Your task to perform on an android device: stop showing notifications on the lock screen Image 0: 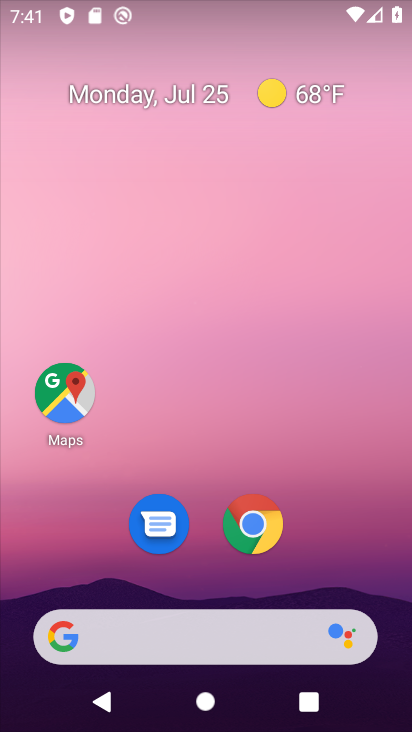
Step 0: drag from (322, 542) to (363, 18)
Your task to perform on an android device: stop showing notifications on the lock screen Image 1: 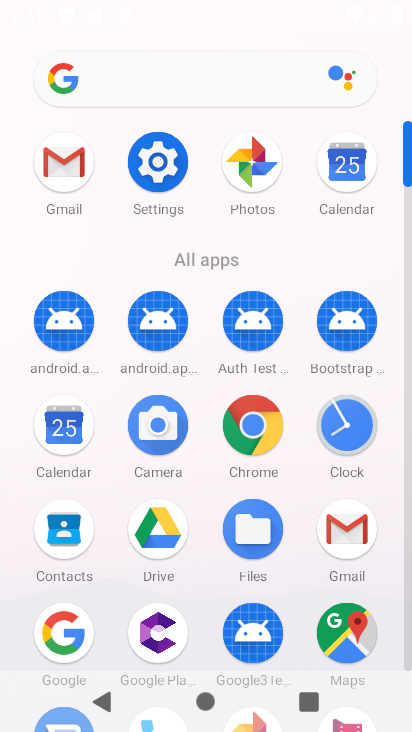
Step 1: click (159, 162)
Your task to perform on an android device: stop showing notifications on the lock screen Image 2: 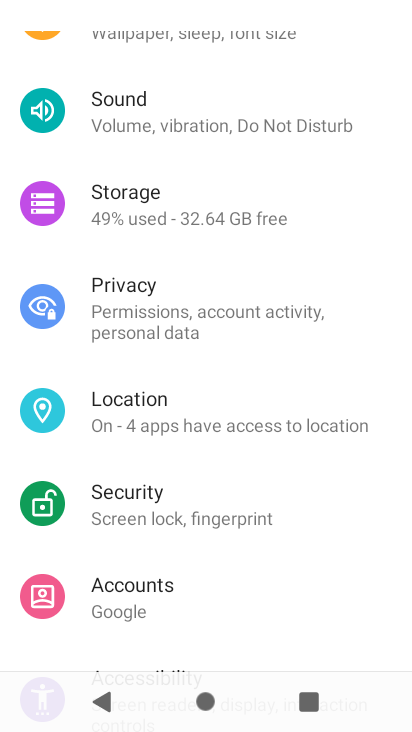
Step 2: drag from (195, 208) to (198, 534)
Your task to perform on an android device: stop showing notifications on the lock screen Image 3: 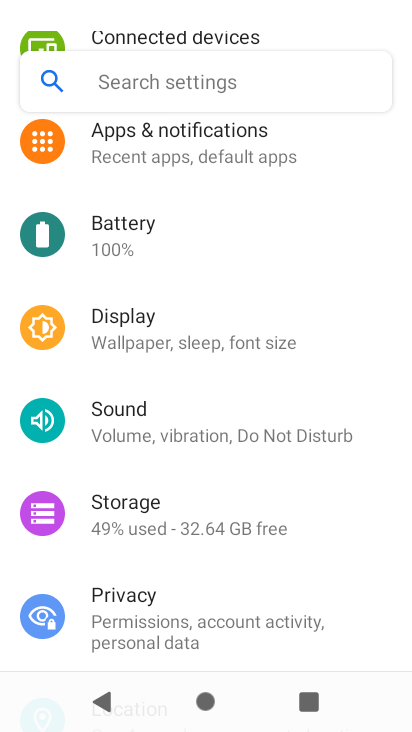
Step 3: drag from (210, 237) to (204, 508)
Your task to perform on an android device: stop showing notifications on the lock screen Image 4: 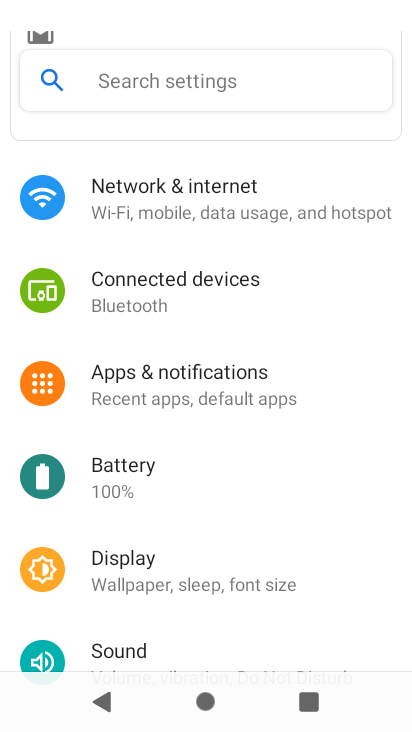
Step 4: click (203, 404)
Your task to perform on an android device: stop showing notifications on the lock screen Image 5: 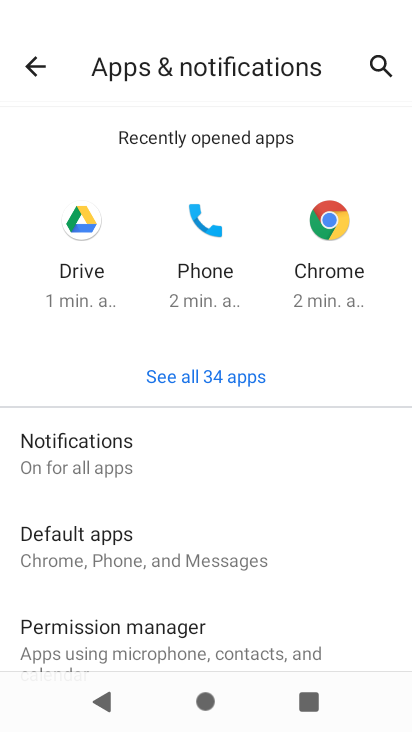
Step 5: drag from (210, 408) to (217, 185)
Your task to perform on an android device: stop showing notifications on the lock screen Image 6: 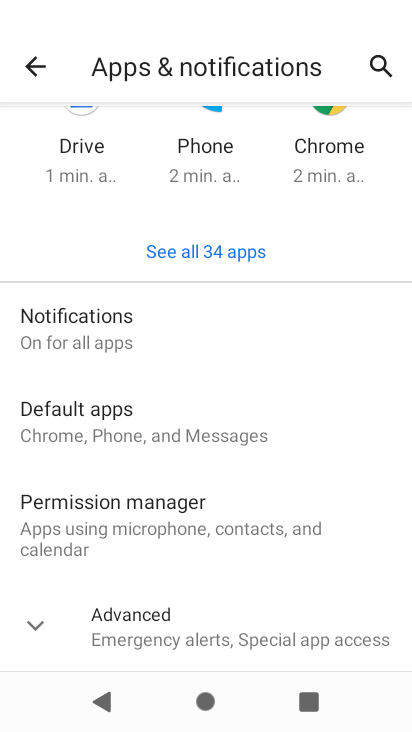
Step 6: click (118, 318)
Your task to perform on an android device: stop showing notifications on the lock screen Image 7: 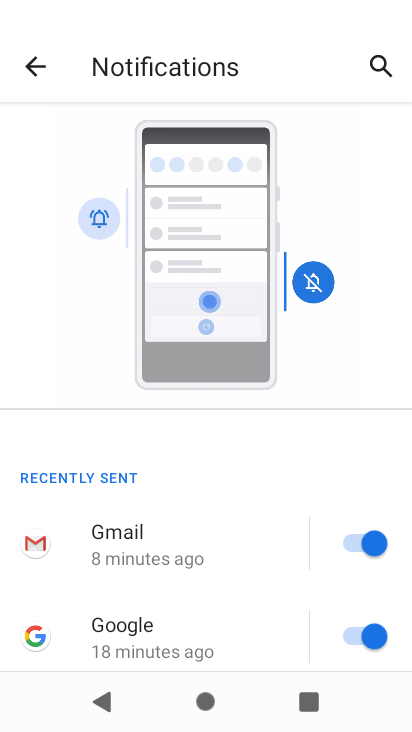
Step 7: drag from (197, 583) to (251, 11)
Your task to perform on an android device: stop showing notifications on the lock screen Image 8: 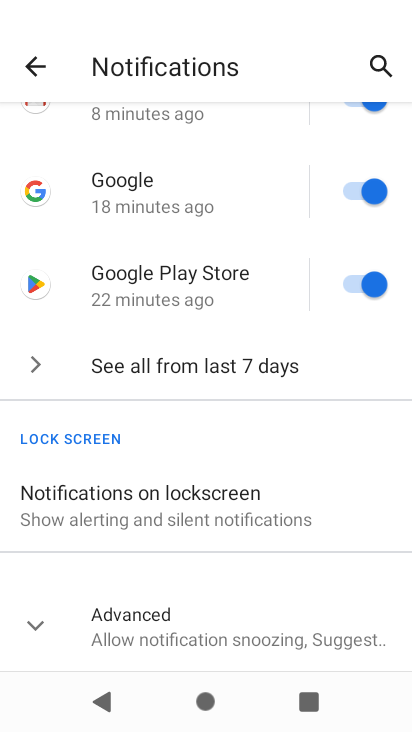
Step 8: click (204, 494)
Your task to perform on an android device: stop showing notifications on the lock screen Image 9: 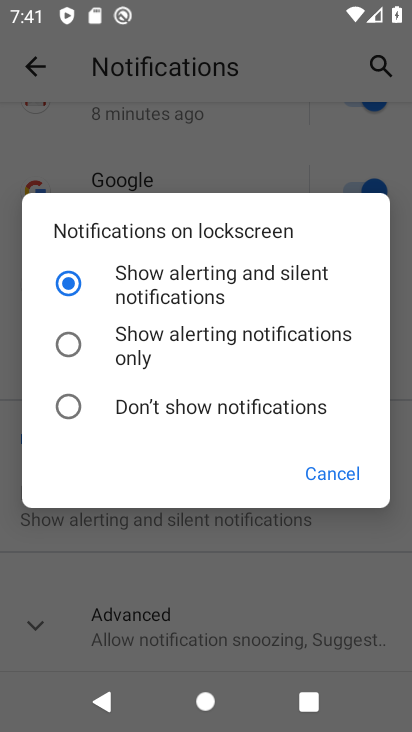
Step 9: click (72, 400)
Your task to perform on an android device: stop showing notifications on the lock screen Image 10: 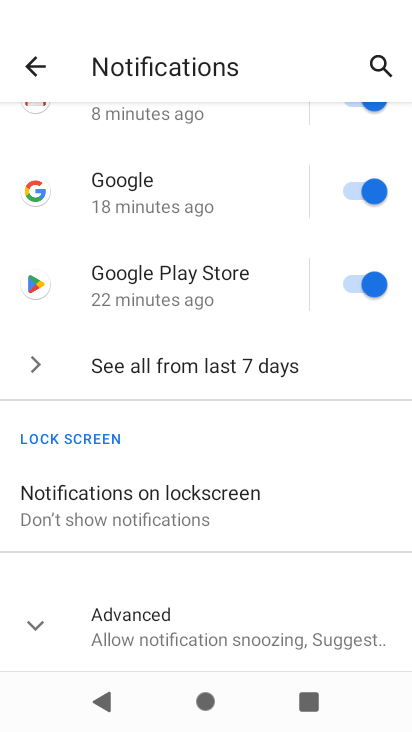
Step 10: task complete